Your task to perform on an android device: View the shopping cart on bestbuy. Image 0: 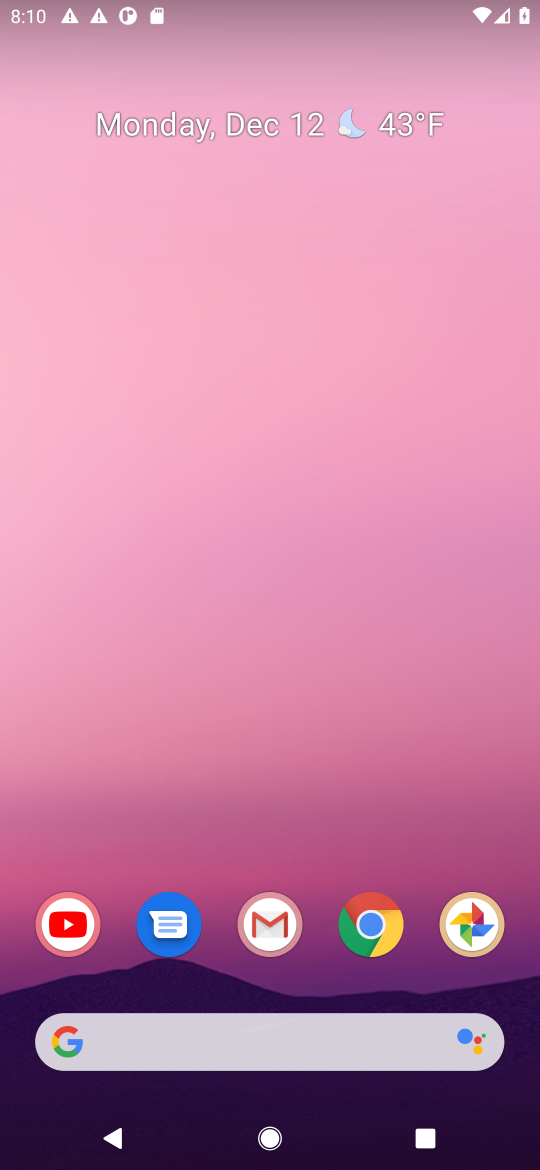
Step 0: click (289, 1042)
Your task to perform on an android device: View the shopping cart on bestbuy. Image 1: 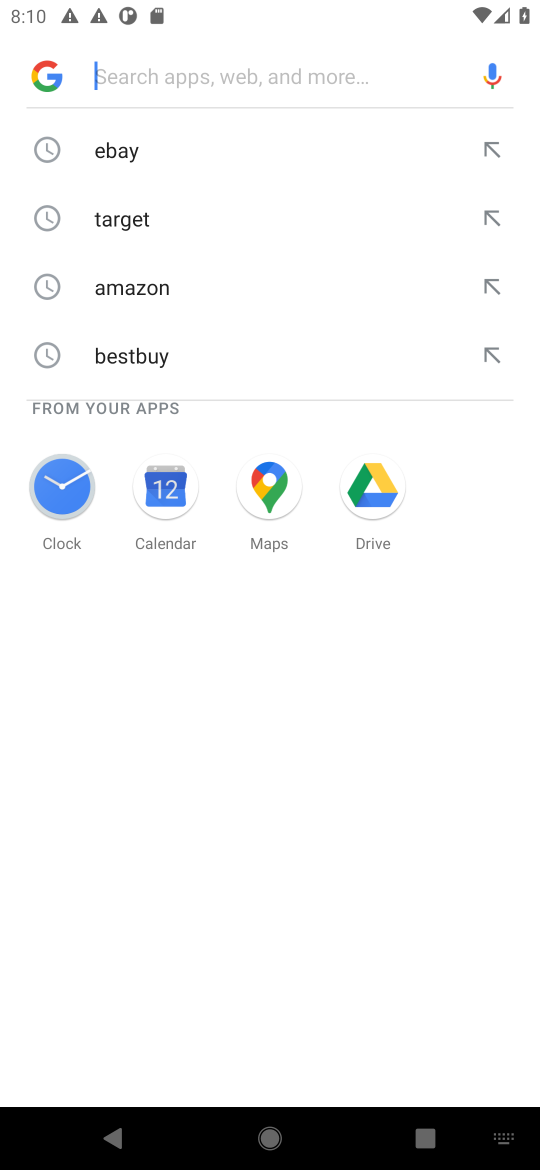
Step 1: click (148, 350)
Your task to perform on an android device: View the shopping cart on bestbuy. Image 2: 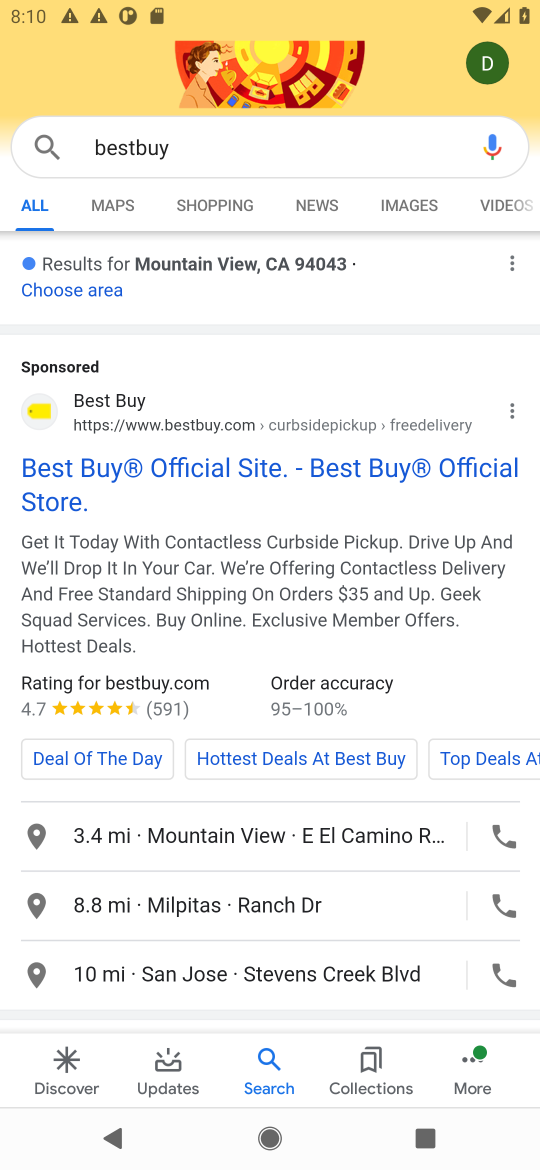
Step 2: click (101, 410)
Your task to perform on an android device: View the shopping cart on bestbuy. Image 3: 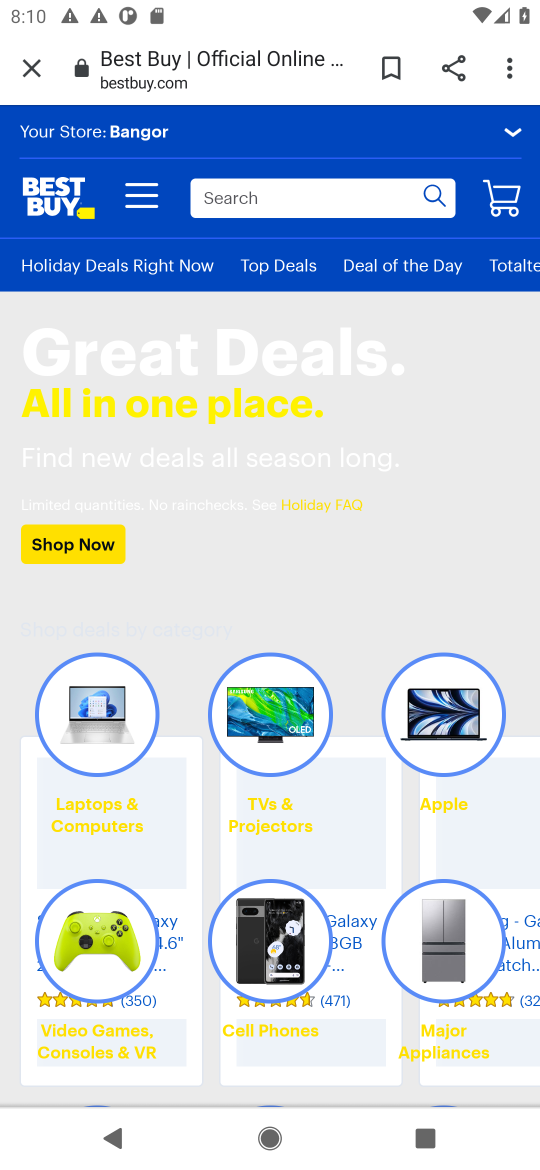
Step 3: click (230, 205)
Your task to perform on an android device: View the shopping cart on bestbuy. Image 4: 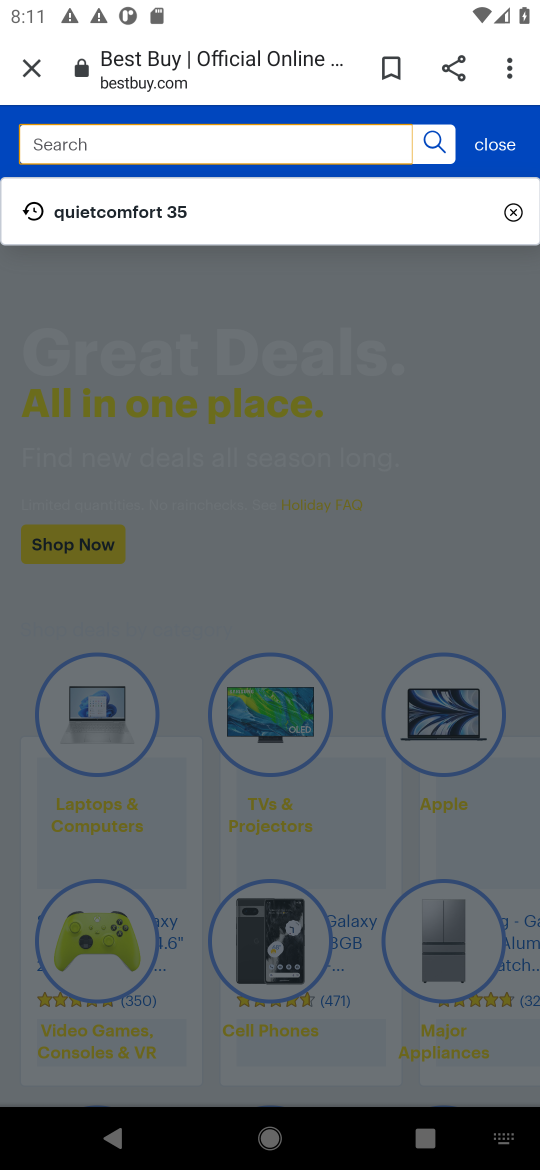
Step 4: click (514, 224)
Your task to perform on an android device: View the shopping cart on bestbuy. Image 5: 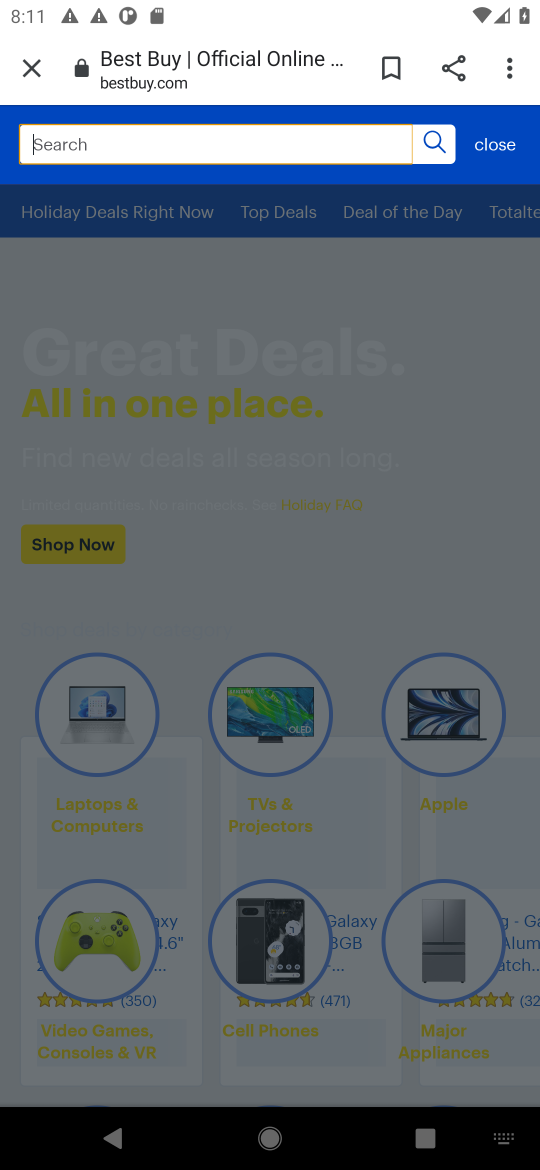
Step 5: click (445, 206)
Your task to perform on an android device: View the shopping cart on bestbuy. Image 6: 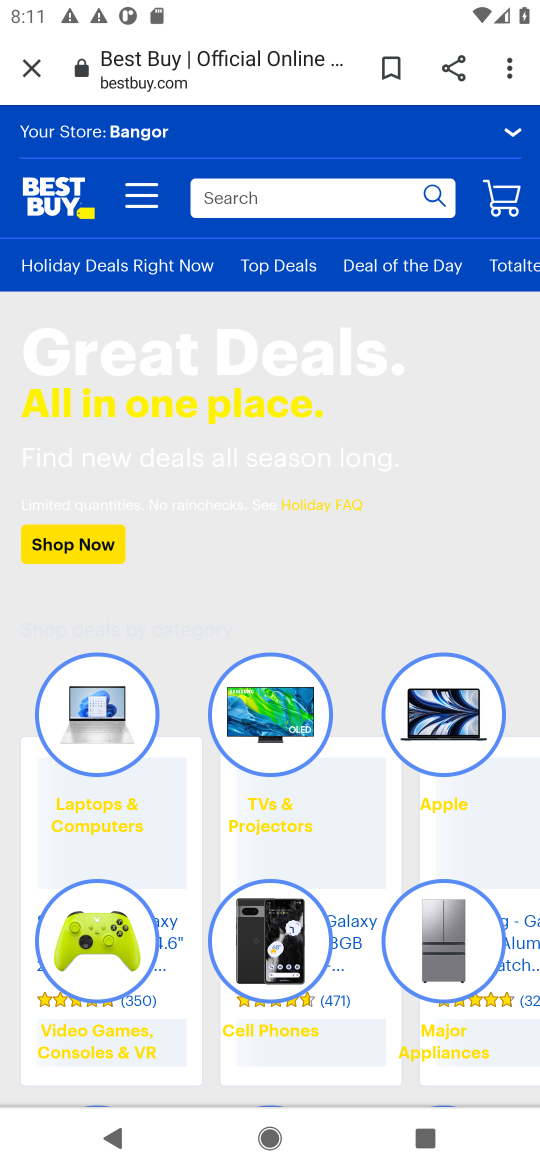
Step 6: click (504, 225)
Your task to perform on an android device: View the shopping cart on bestbuy. Image 7: 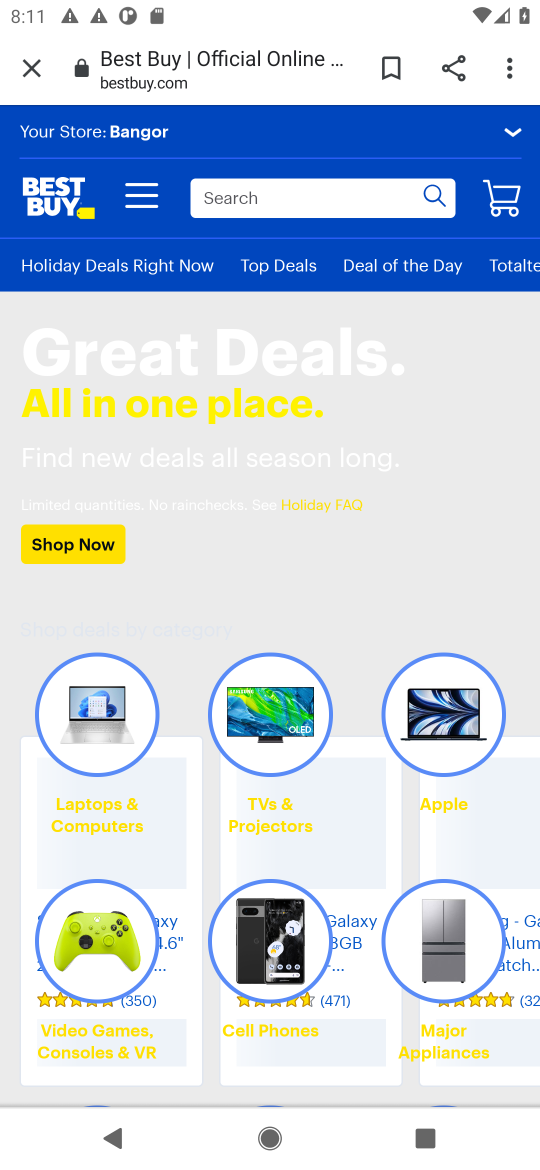
Step 7: click (494, 202)
Your task to perform on an android device: View the shopping cart on bestbuy. Image 8: 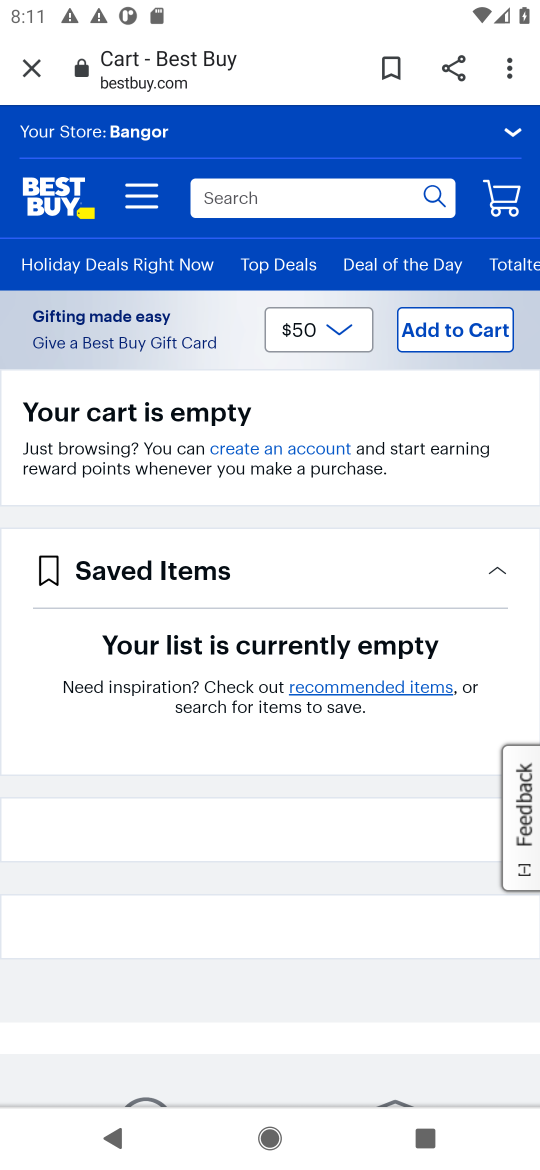
Step 8: task complete